Your task to perform on an android device: make emails show in primary in the gmail app Image 0: 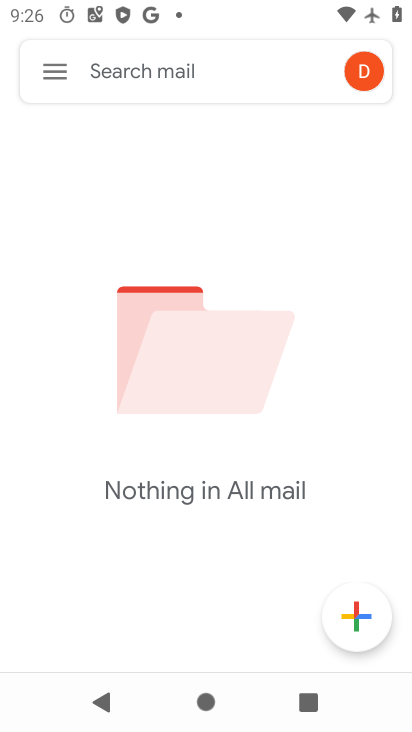
Step 0: click (62, 70)
Your task to perform on an android device: make emails show in primary in the gmail app Image 1: 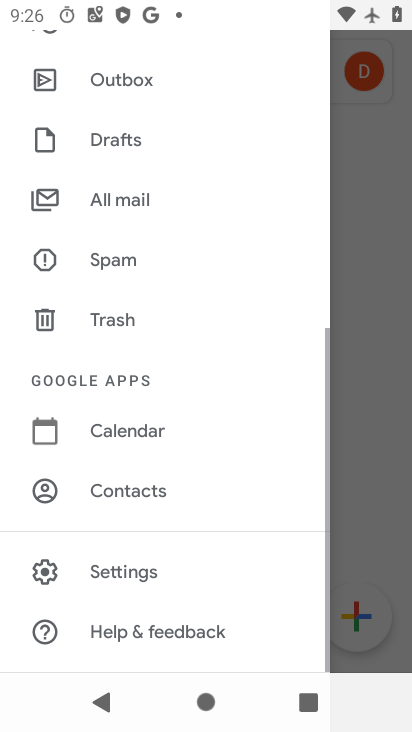
Step 1: click (164, 561)
Your task to perform on an android device: make emails show in primary in the gmail app Image 2: 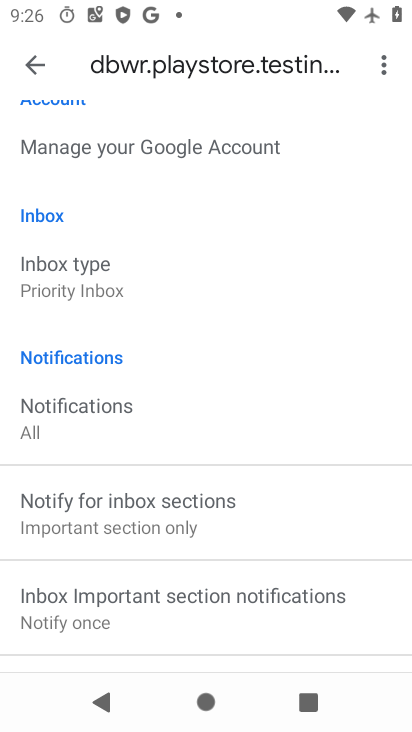
Step 2: click (182, 295)
Your task to perform on an android device: make emails show in primary in the gmail app Image 3: 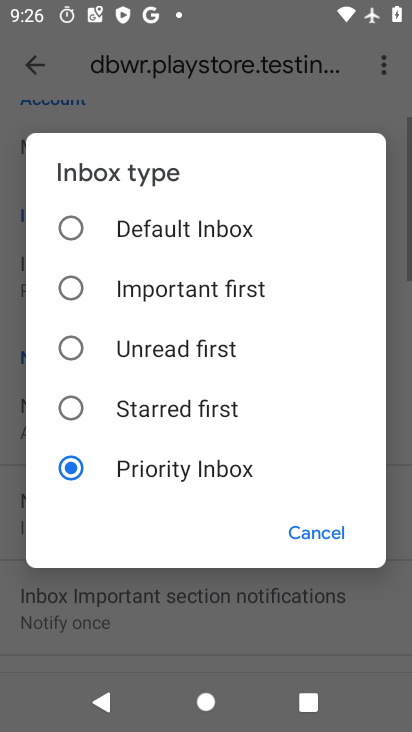
Step 3: click (159, 235)
Your task to perform on an android device: make emails show in primary in the gmail app Image 4: 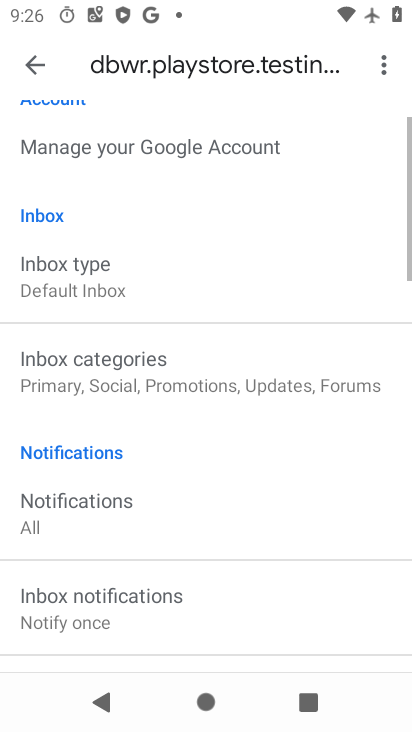
Step 4: click (197, 350)
Your task to perform on an android device: make emails show in primary in the gmail app Image 5: 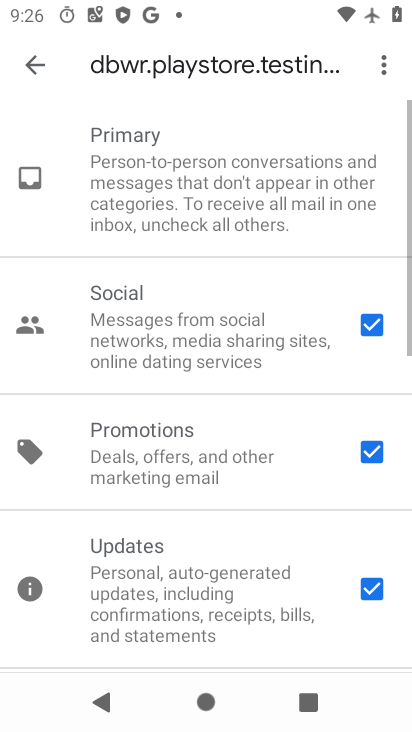
Step 5: click (374, 325)
Your task to perform on an android device: make emails show in primary in the gmail app Image 6: 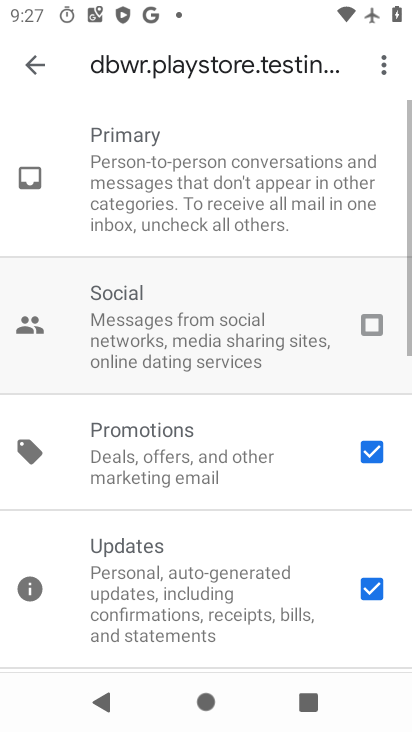
Step 6: click (376, 436)
Your task to perform on an android device: make emails show in primary in the gmail app Image 7: 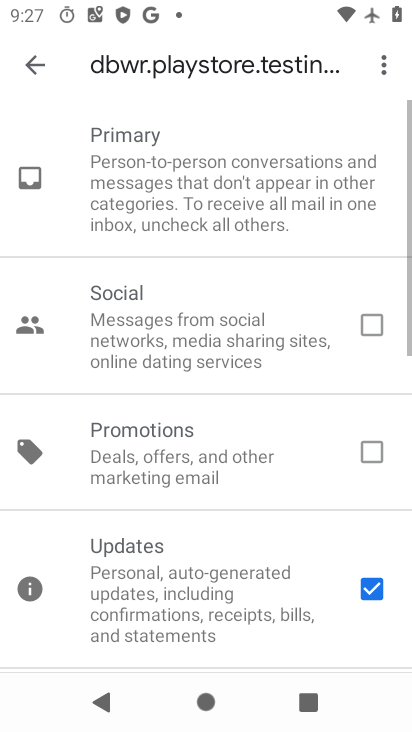
Step 7: click (381, 584)
Your task to perform on an android device: make emails show in primary in the gmail app Image 8: 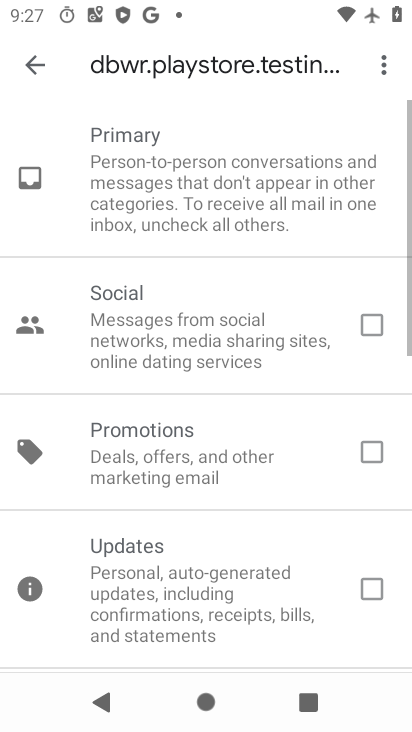
Step 8: click (47, 59)
Your task to perform on an android device: make emails show in primary in the gmail app Image 9: 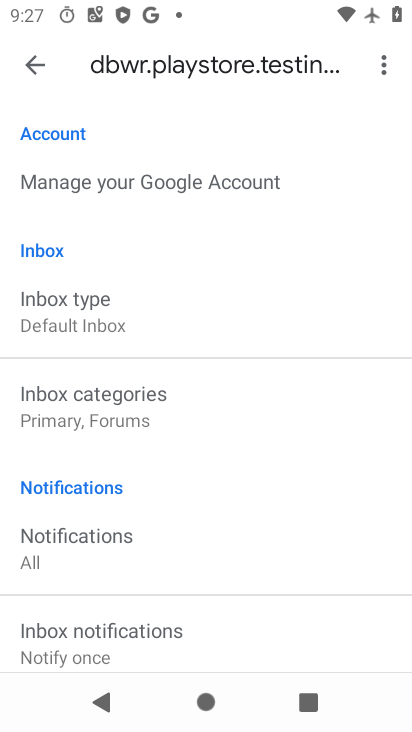
Step 9: click (157, 375)
Your task to perform on an android device: make emails show in primary in the gmail app Image 10: 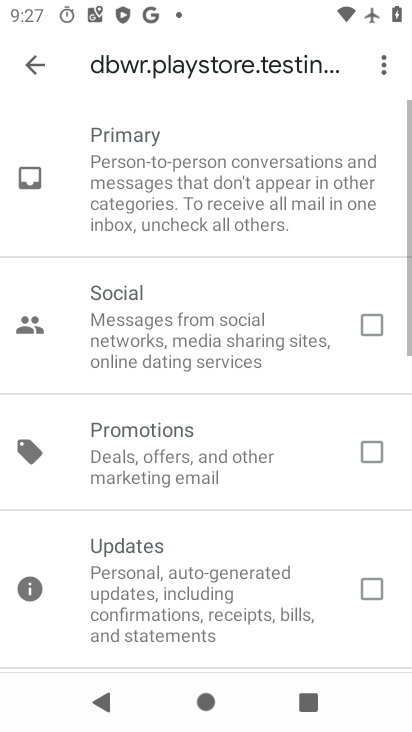
Step 10: drag from (305, 580) to (310, 211)
Your task to perform on an android device: make emails show in primary in the gmail app Image 11: 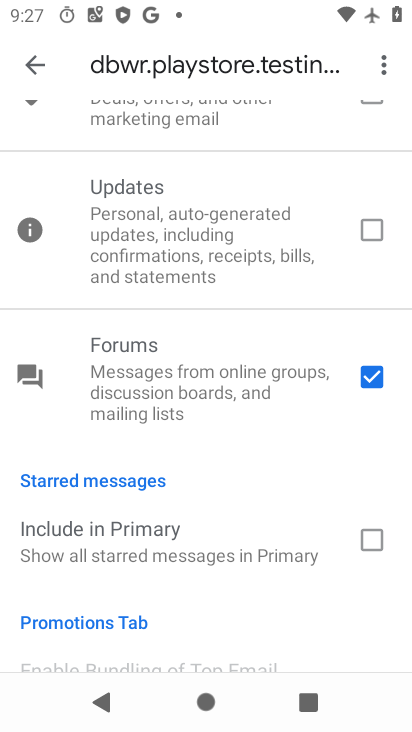
Step 11: click (342, 368)
Your task to perform on an android device: make emails show in primary in the gmail app Image 12: 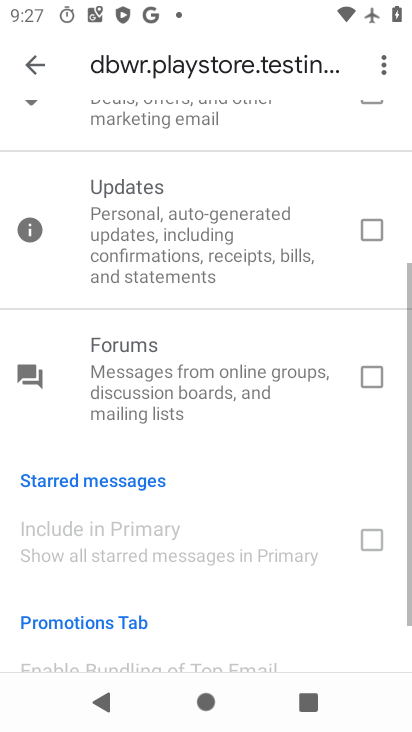
Step 12: click (34, 70)
Your task to perform on an android device: make emails show in primary in the gmail app Image 13: 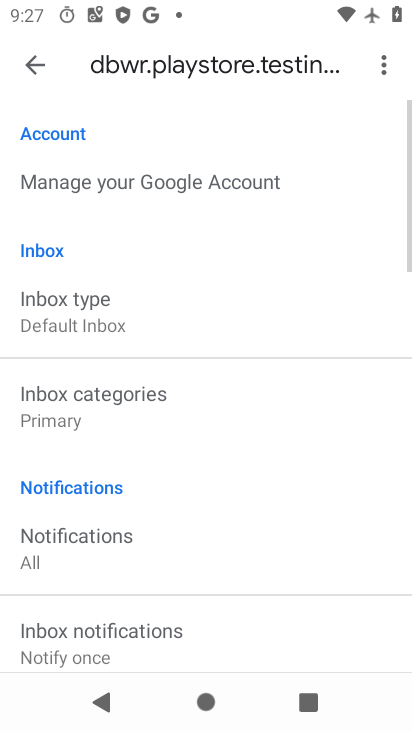
Step 13: task complete